Your task to perform on an android device: Open my contact list Image 0: 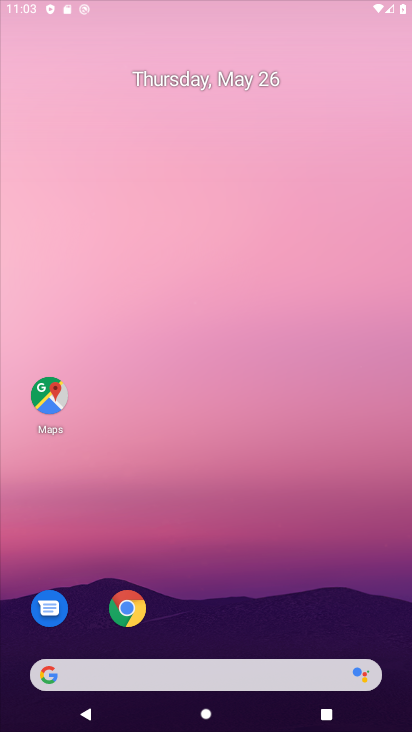
Step 0: drag from (320, 604) to (300, 111)
Your task to perform on an android device: Open my contact list Image 1: 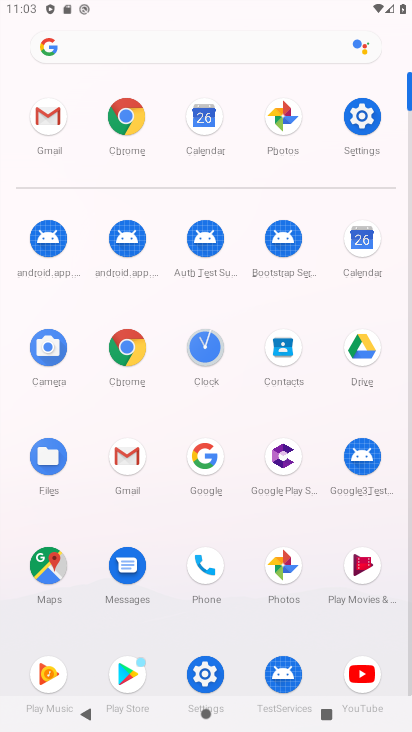
Step 1: click (353, 127)
Your task to perform on an android device: Open my contact list Image 2: 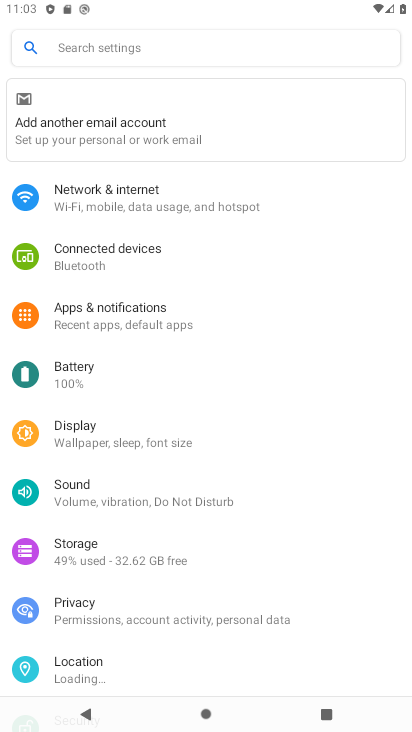
Step 2: press home button
Your task to perform on an android device: Open my contact list Image 3: 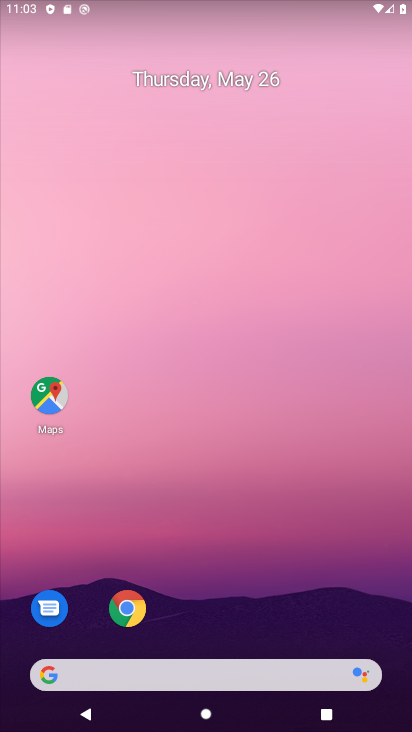
Step 3: drag from (327, 600) to (261, 97)
Your task to perform on an android device: Open my contact list Image 4: 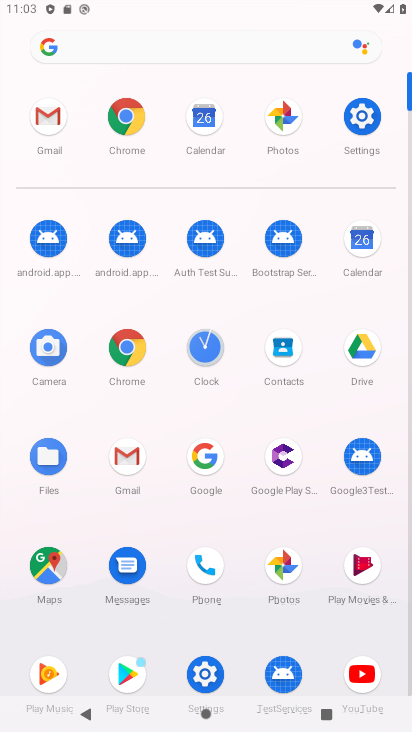
Step 4: click (280, 361)
Your task to perform on an android device: Open my contact list Image 5: 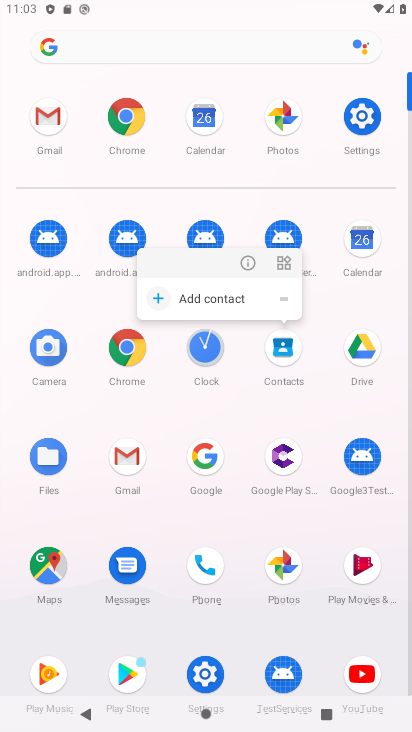
Step 5: click (282, 353)
Your task to perform on an android device: Open my contact list Image 6: 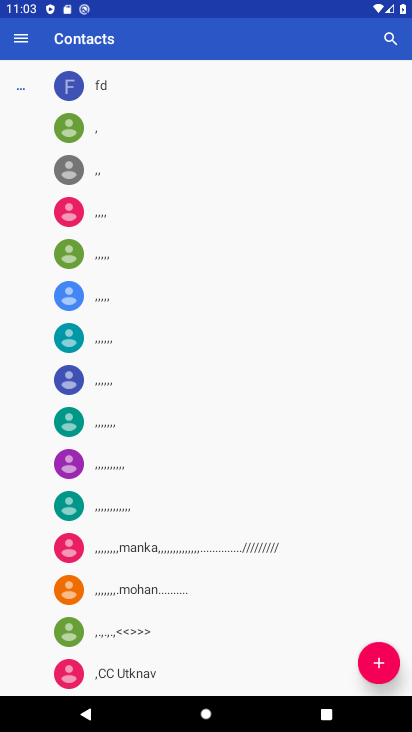
Step 6: task complete